Your task to perform on an android device: turn off airplane mode Image 0: 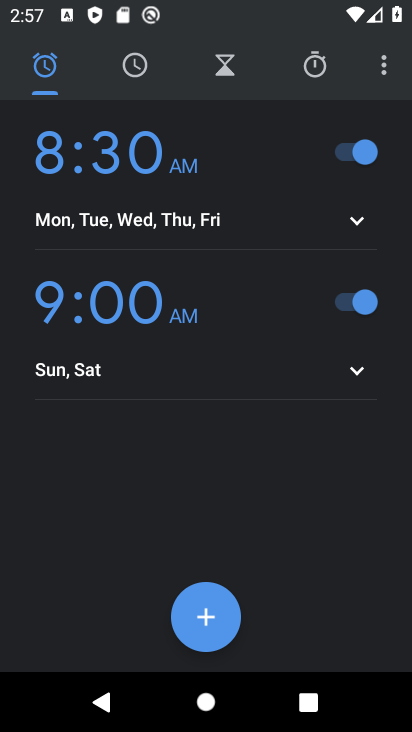
Step 0: press home button
Your task to perform on an android device: turn off airplane mode Image 1: 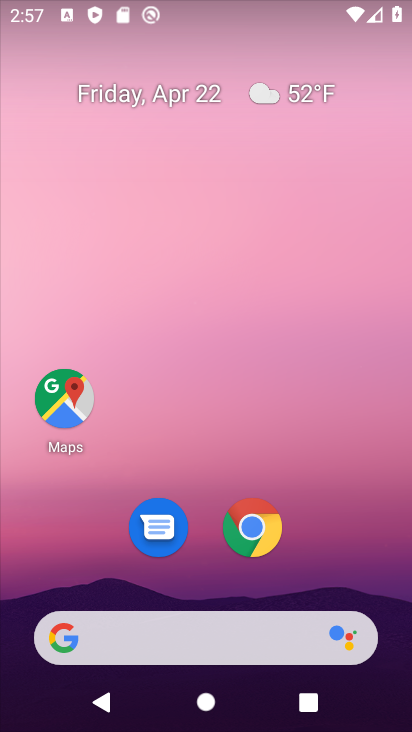
Step 1: drag from (358, 553) to (410, 145)
Your task to perform on an android device: turn off airplane mode Image 2: 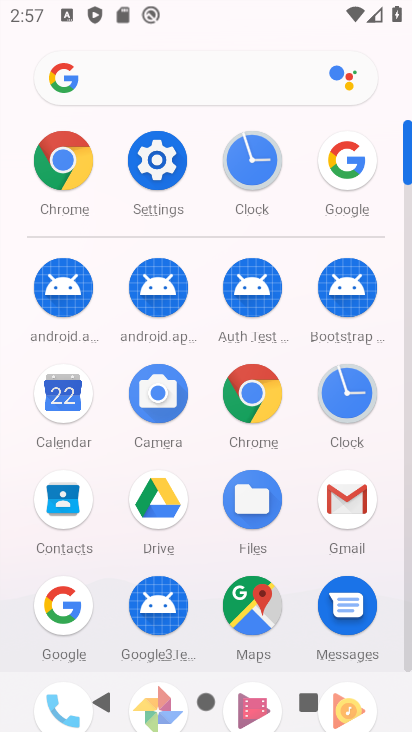
Step 2: click (155, 169)
Your task to perform on an android device: turn off airplane mode Image 3: 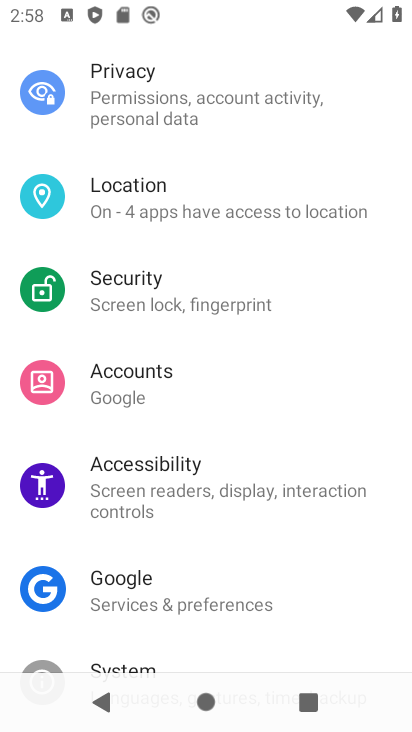
Step 3: drag from (266, 177) to (219, 566)
Your task to perform on an android device: turn off airplane mode Image 4: 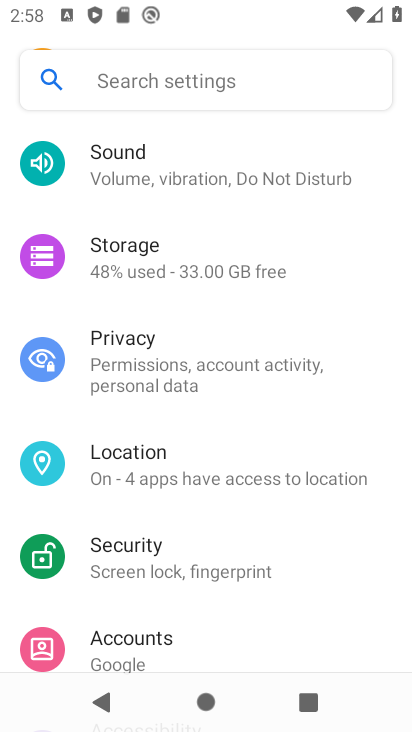
Step 4: drag from (311, 204) to (242, 589)
Your task to perform on an android device: turn off airplane mode Image 5: 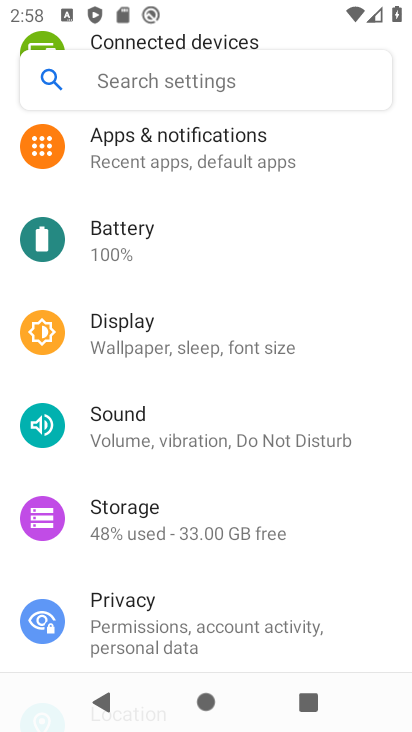
Step 5: drag from (222, 218) to (200, 578)
Your task to perform on an android device: turn off airplane mode Image 6: 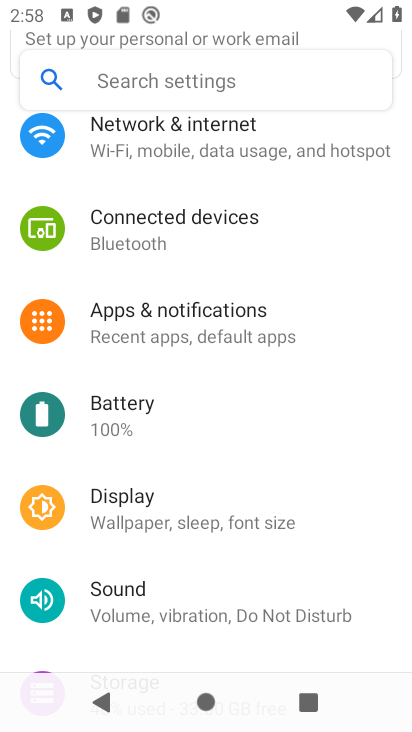
Step 6: drag from (238, 347) to (205, 599)
Your task to perform on an android device: turn off airplane mode Image 7: 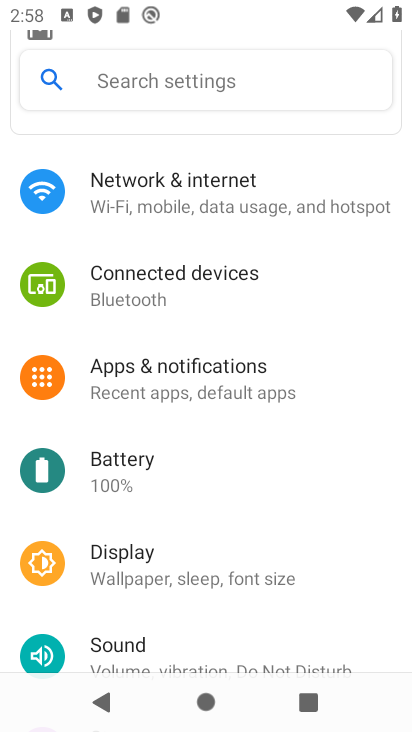
Step 7: drag from (278, 258) to (198, 575)
Your task to perform on an android device: turn off airplane mode Image 8: 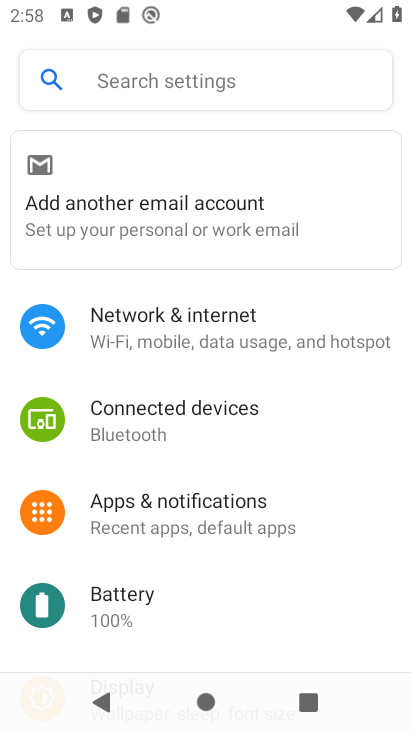
Step 8: click (259, 342)
Your task to perform on an android device: turn off airplane mode Image 9: 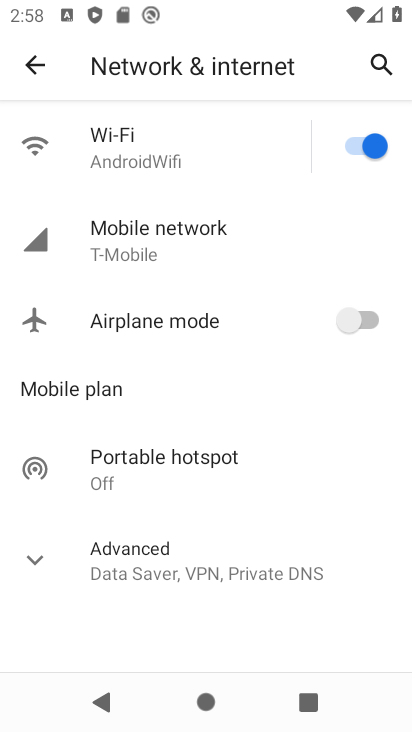
Step 9: task complete